Your task to perform on an android device: allow notifications from all sites in the chrome app Image 0: 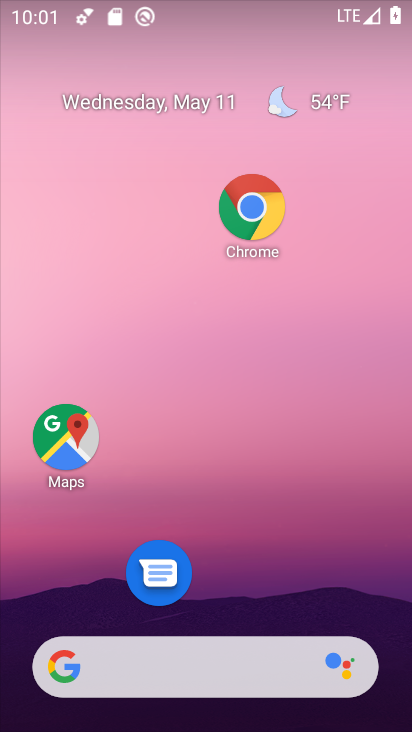
Step 0: drag from (233, 595) to (179, 19)
Your task to perform on an android device: allow notifications from all sites in the chrome app Image 1: 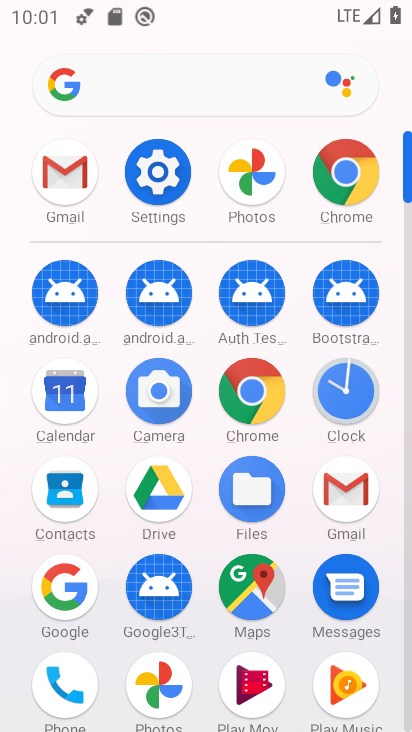
Step 1: click (245, 400)
Your task to perform on an android device: allow notifications from all sites in the chrome app Image 2: 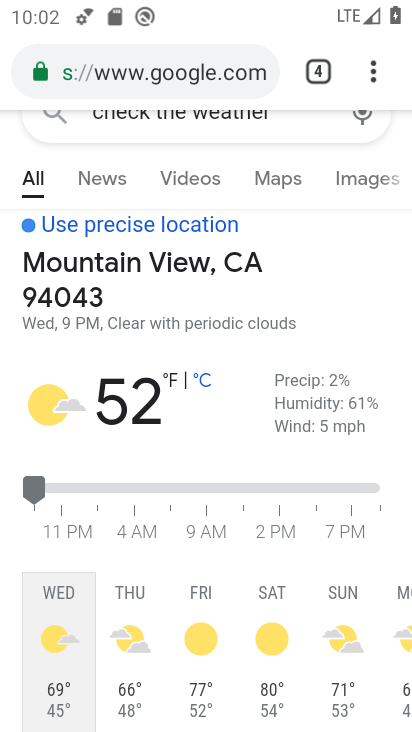
Step 2: drag from (366, 61) to (178, 577)
Your task to perform on an android device: allow notifications from all sites in the chrome app Image 3: 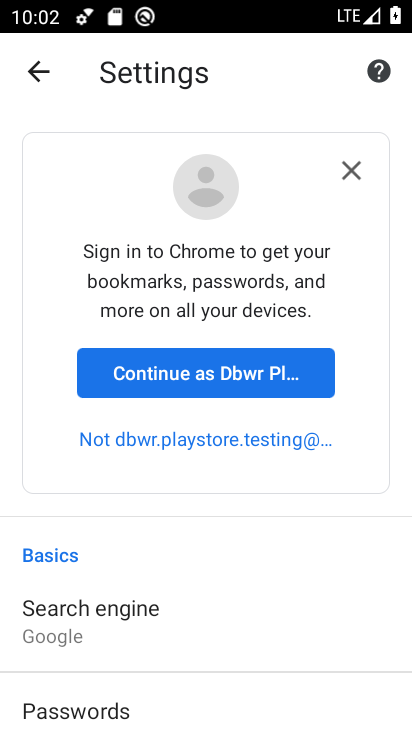
Step 3: drag from (174, 652) to (218, 20)
Your task to perform on an android device: allow notifications from all sites in the chrome app Image 4: 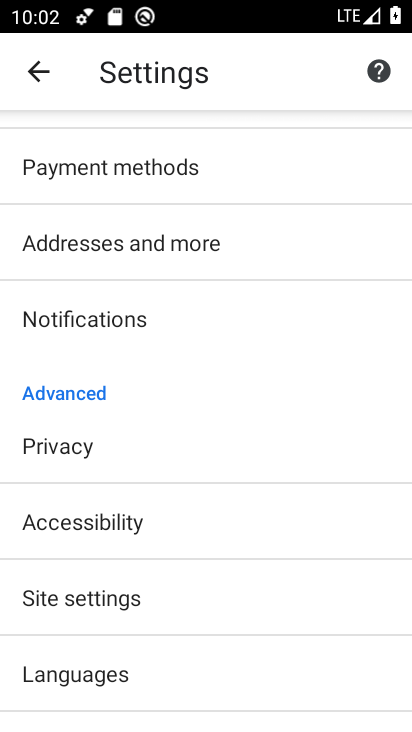
Step 4: drag from (252, 687) to (248, 722)
Your task to perform on an android device: allow notifications from all sites in the chrome app Image 5: 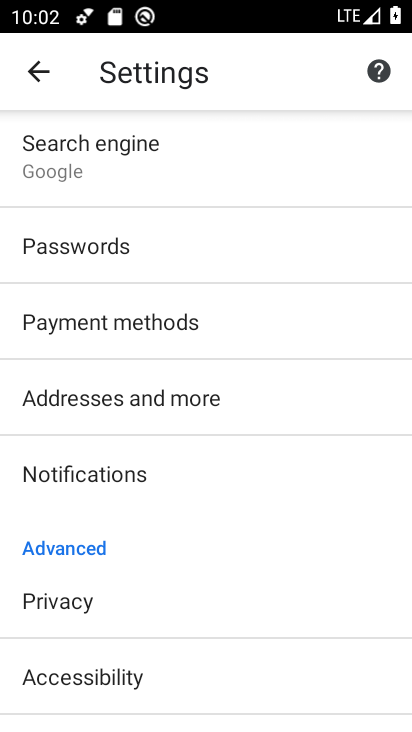
Step 5: drag from (156, 686) to (149, 270)
Your task to perform on an android device: allow notifications from all sites in the chrome app Image 6: 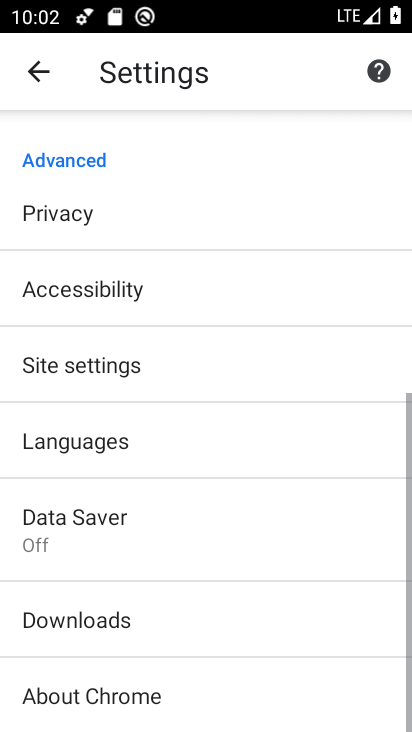
Step 6: click (130, 377)
Your task to perform on an android device: allow notifications from all sites in the chrome app Image 7: 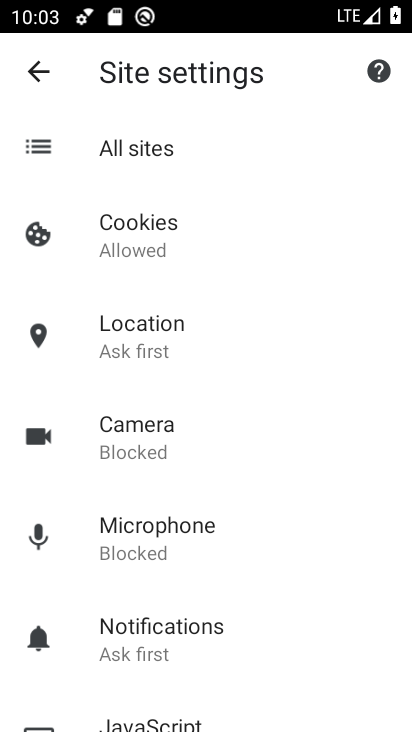
Step 7: click (219, 648)
Your task to perform on an android device: allow notifications from all sites in the chrome app Image 8: 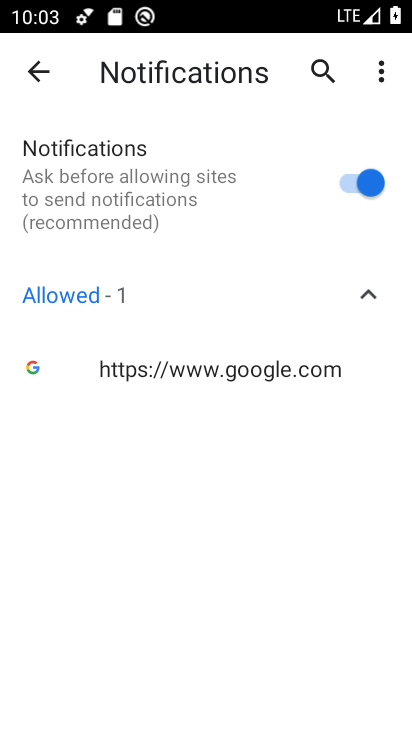
Step 8: click (304, 377)
Your task to perform on an android device: allow notifications from all sites in the chrome app Image 9: 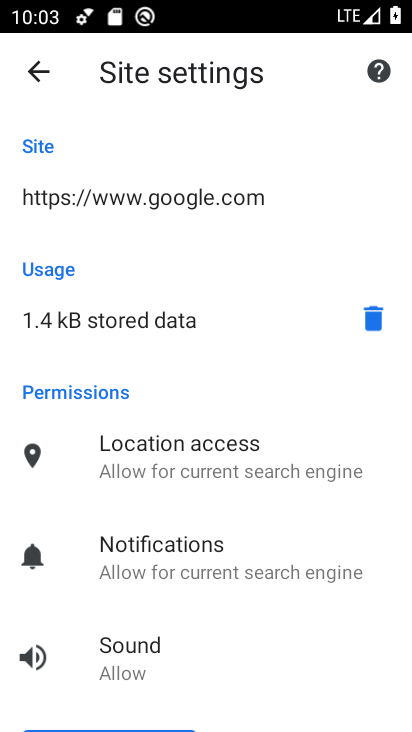
Step 9: task complete